Your task to perform on an android device: turn off location Image 0: 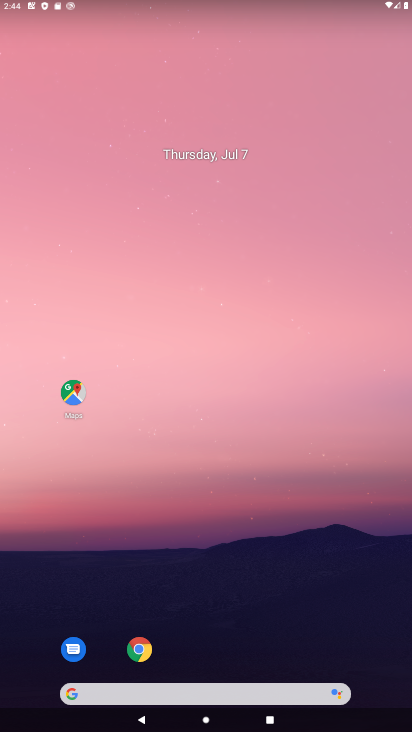
Step 0: drag from (320, 684) to (375, 109)
Your task to perform on an android device: turn off location Image 1: 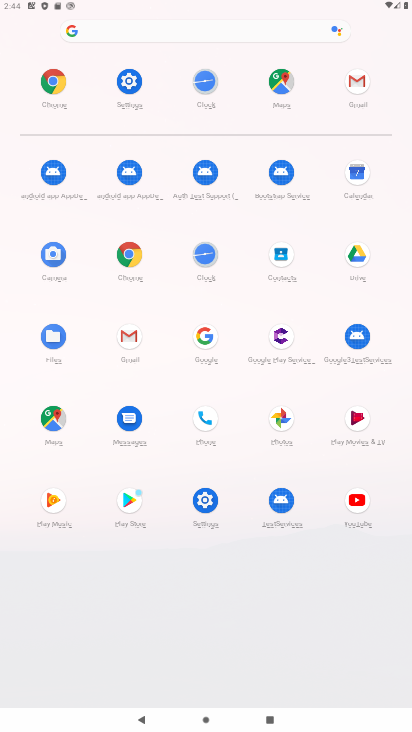
Step 1: click (122, 89)
Your task to perform on an android device: turn off location Image 2: 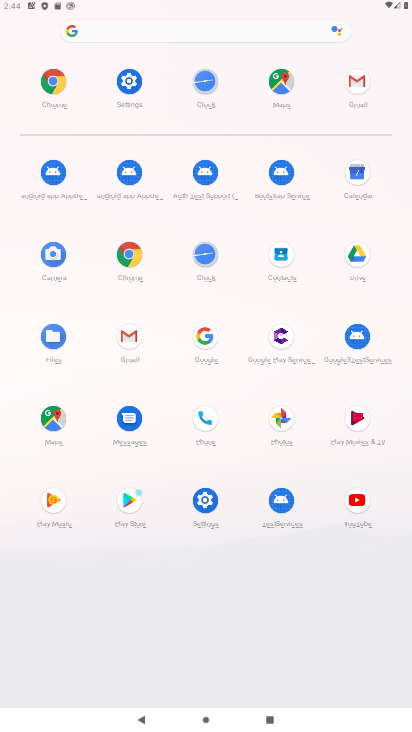
Step 2: click (406, 662)
Your task to perform on an android device: turn off location Image 3: 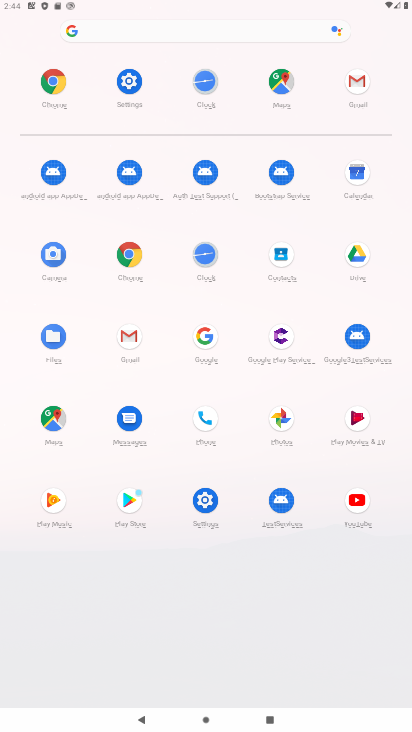
Step 3: click (130, 88)
Your task to perform on an android device: turn off location Image 4: 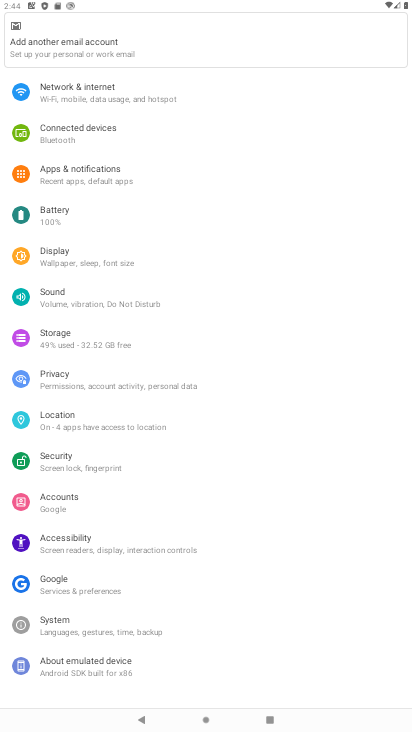
Step 4: click (42, 423)
Your task to perform on an android device: turn off location Image 5: 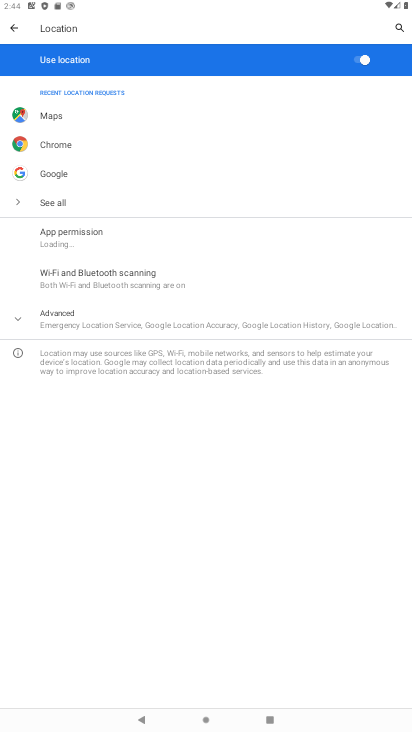
Step 5: click (366, 59)
Your task to perform on an android device: turn off location Image 6: 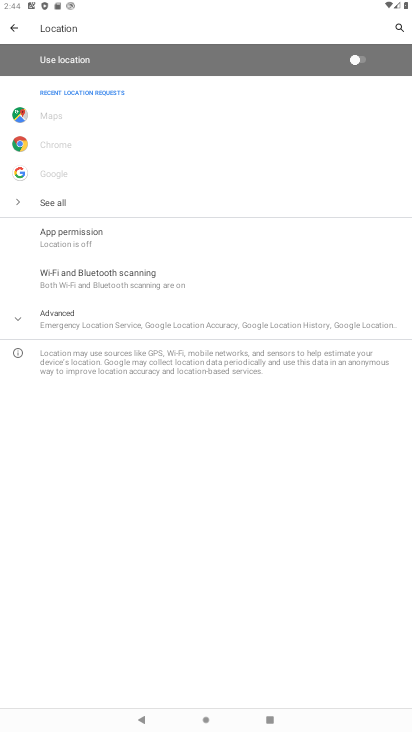
Step 6: task complete